Your task to perform on an android device: Do I have any events tomorrow? Image 0: 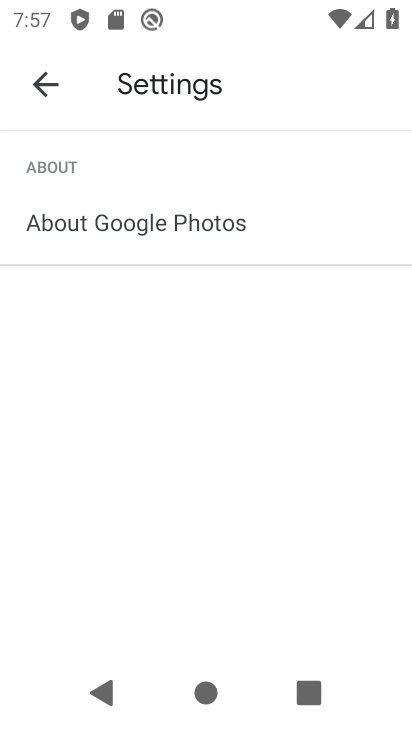
Step 0: press home button
Your task to perform on an android device: Do I have any events tomorrow? Image 1: 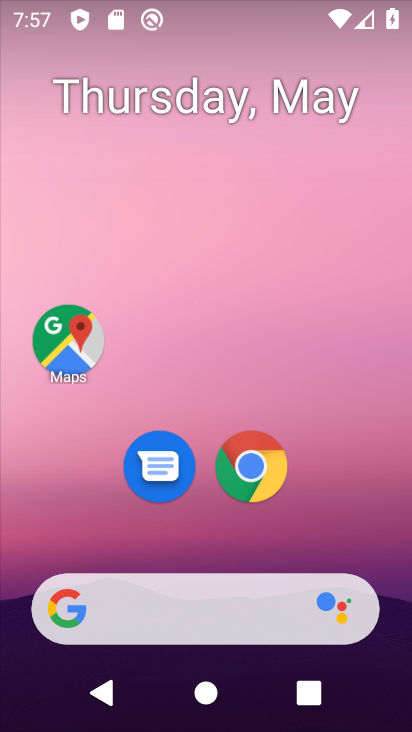
Step 1: drag from (355, 511) to (265, 50)
Your task to perform on an android device: Do I have any events tomorrow? Image 2: 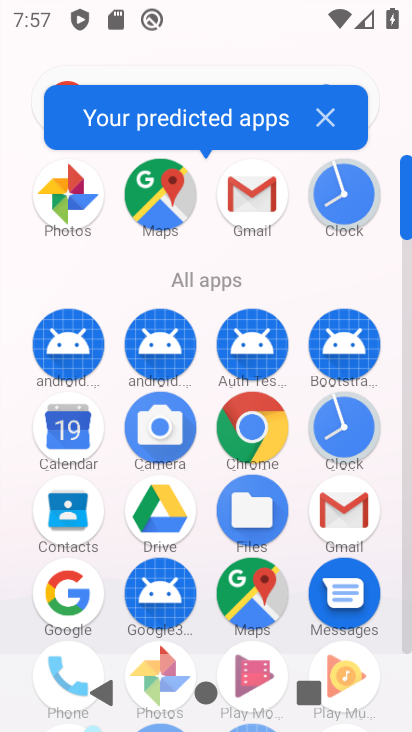
Step 2: click (69, 431)
Your task to perform on an android device: Do I have any events tomorrow? Image 3: 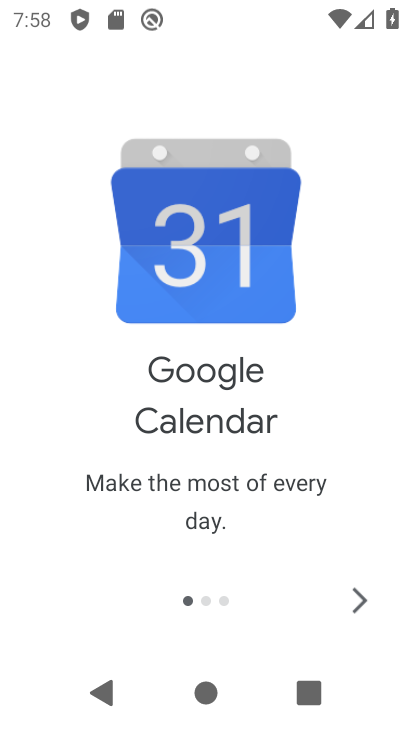
Step 3: click (355, 593)
Your task to perform on an android device: Do I have any events tomorrow? Image 4: 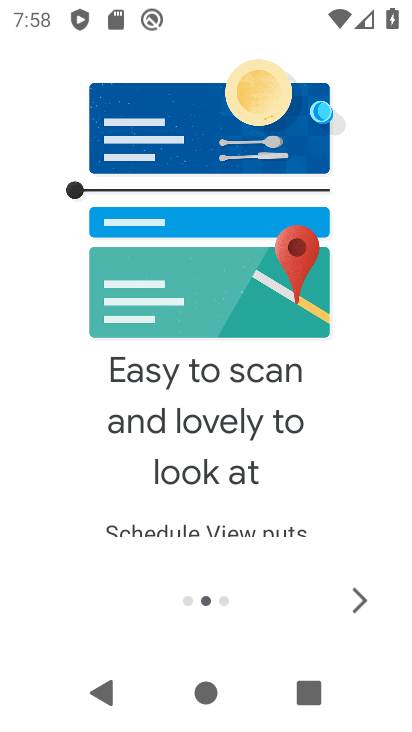
Step 4: click (355, 593)
Your task to perform on an android device: Do I have any events tomorrow? Image 5: 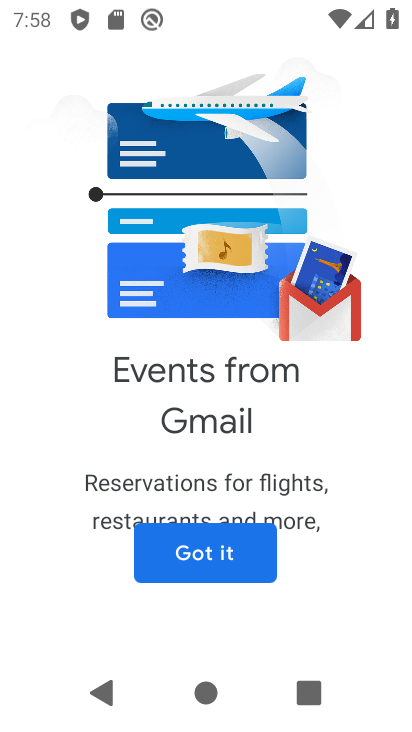
Step 5: click (225, 550)
Your task to perform on an android device: Do I have any events tomorrow? Image 6: 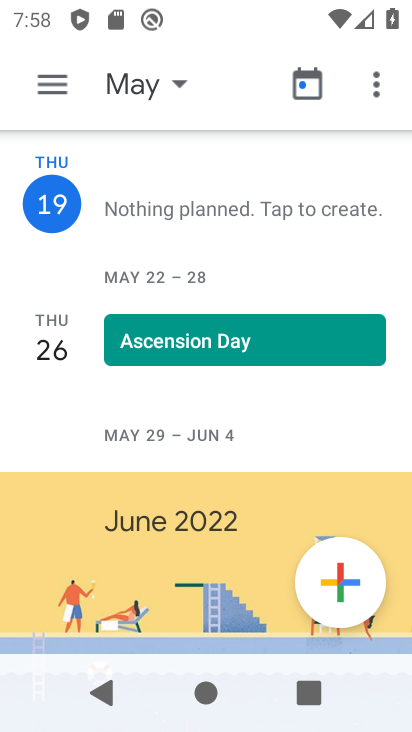
Step 6: click (42, 75)
Your task to perform on an android device: Do I have any events tomorrow? Image 7: 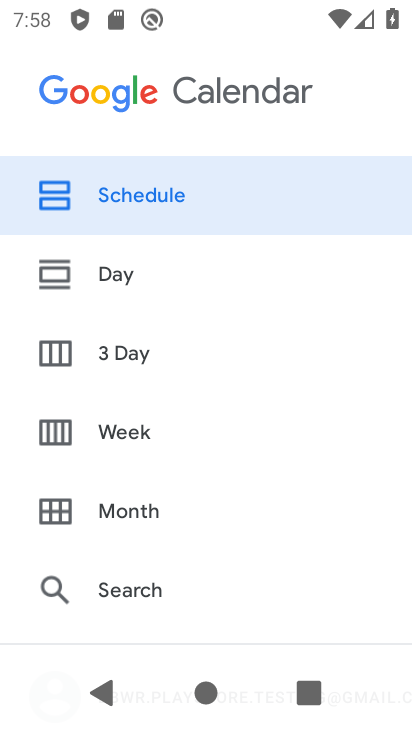
Step 7: drag from (151, 530) to (140, 41)
Your task to perform on an android device: Do I have any events tomorrow? Image 8: 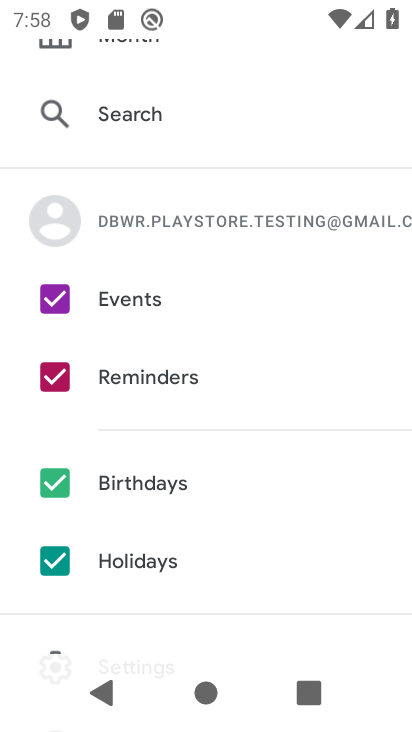
Step 8: click (54, 553)
Your task to perform on an android device: Do I have any events tomorrow? Image 9: 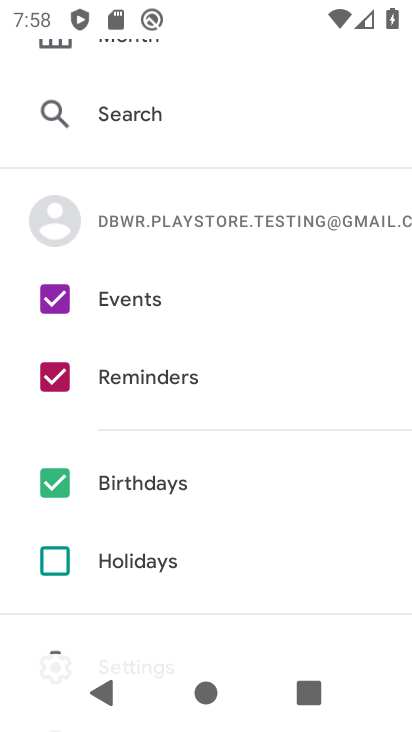
Step 9: click (64, 489)
Your task to perform on an android device: Do I have any events tomorrow? Image 10: 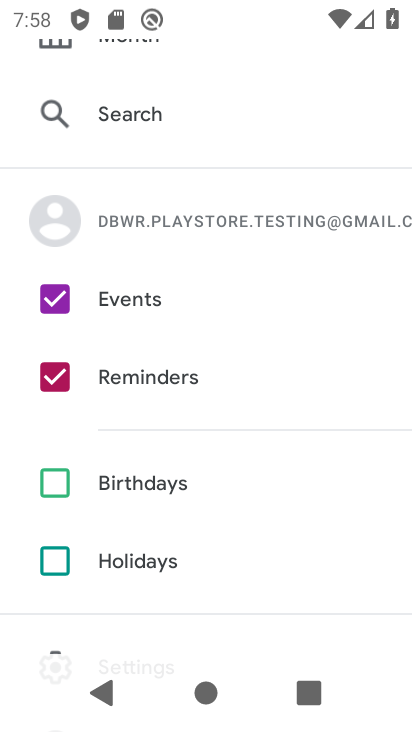
Step 10: click (60, 377)
Your task to perform on an android device: Do I have any events tomorrow? Image 11: 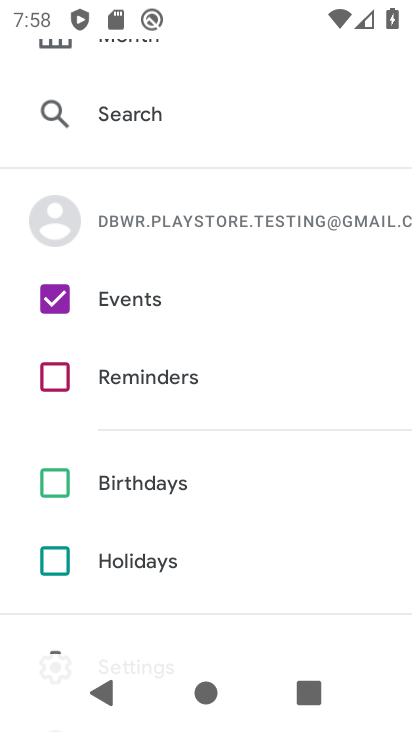
Step 11: drag from (197, 147) to (207, 670)
Your task to perform on an android device: Do I have any events tomorrow? Image 12: 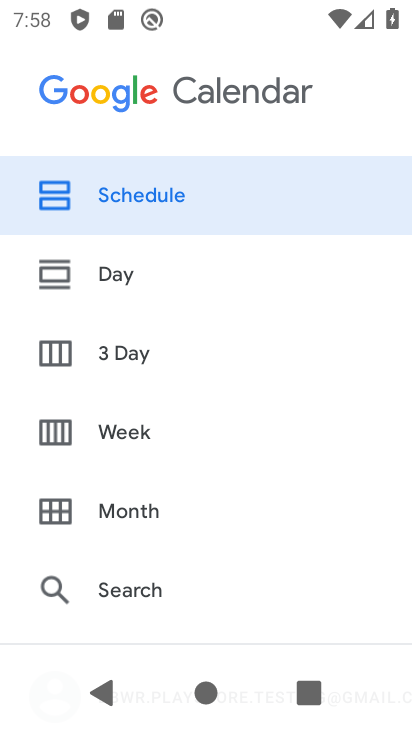
Step 12: click (188, 188)
Your task to perform on an android device: Do I have any events tomorrow? Image 13: 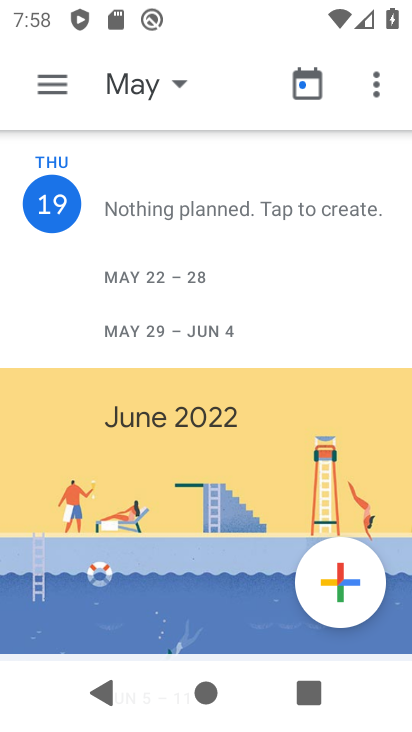
Step 13: click (158, 103)
Your task to perform on an android device: Do I have any events tomorrow? Image 14: 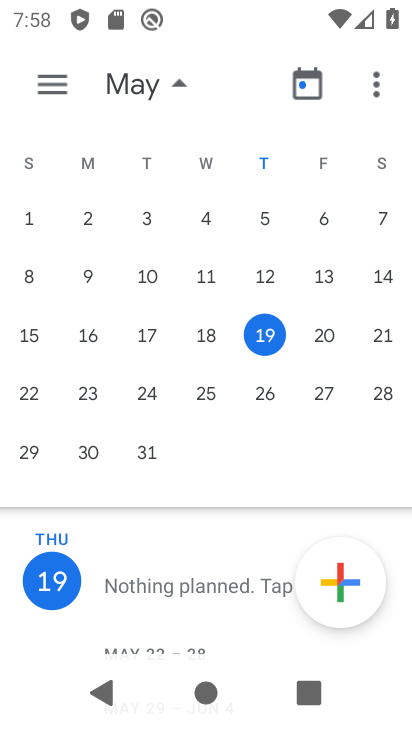
Step 14: click (327, 333)
Your task to perform on an android device: Do I have any events tomorrow? Image 15: 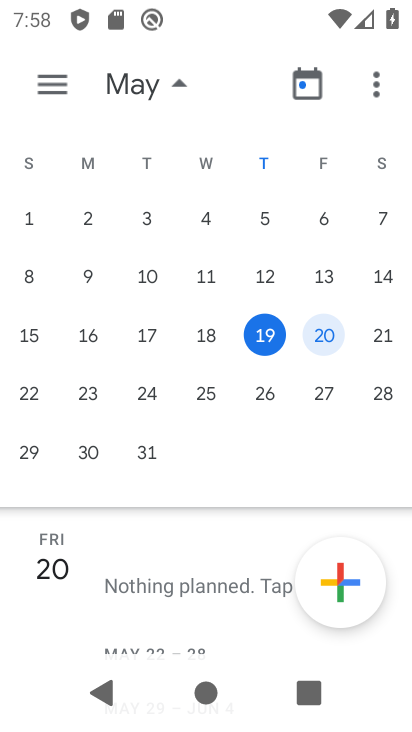
Step 15: click (397, 336)
Your task to perform on an android device: Do I have any events tomorrow? Image 16: 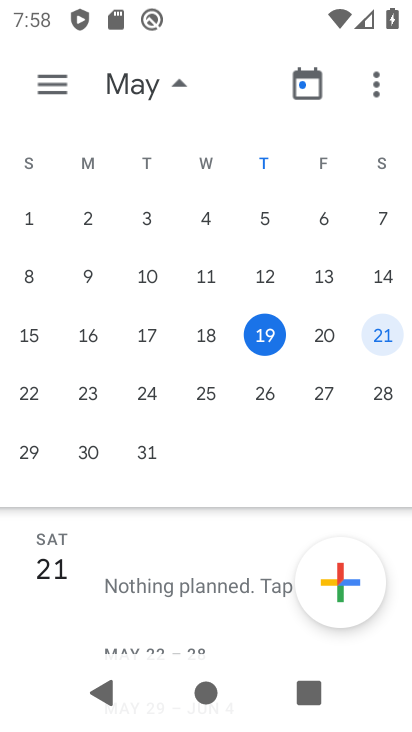
Step 16: click (172, 78)
Your task to perform on an android device: Do I have any events tomorrow? Image 17: 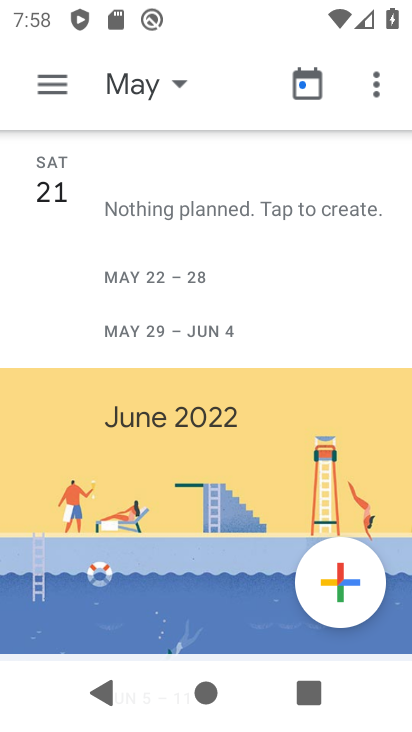
Step 17: task complete